Your task to perform on an android device: toggle translation in the chrome app Image 0: 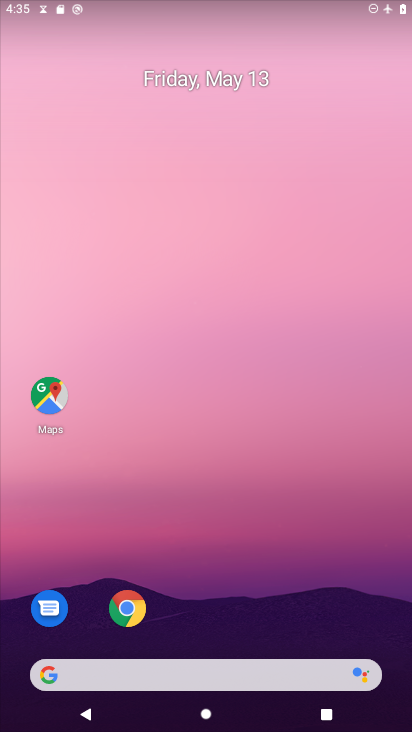
Step 0: drag from (288, 623) to (299, 124)
Your task to perform on an android device: toggle translation in the chrome app Image 1: 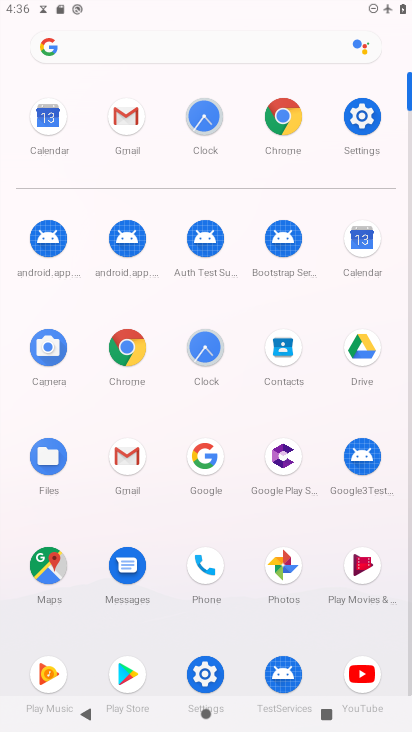
Step 1: click (129, 351)
Your task to perform on an android device: toggle translation in the chrome app Image 2: 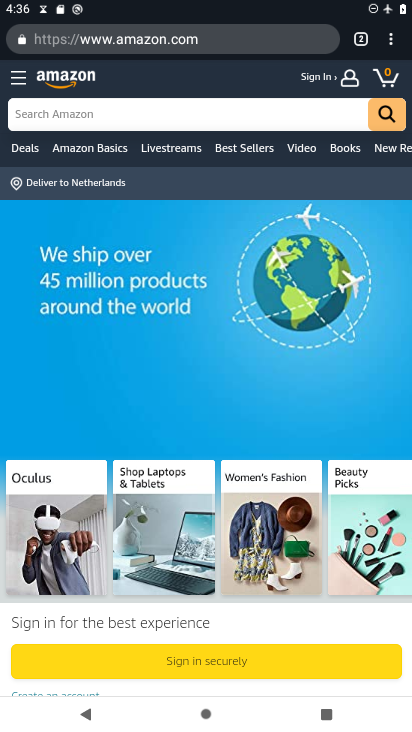
Step 2: click (394, 38)
Your task to perform on an android device: toggle translation in the chrome app Image 3: 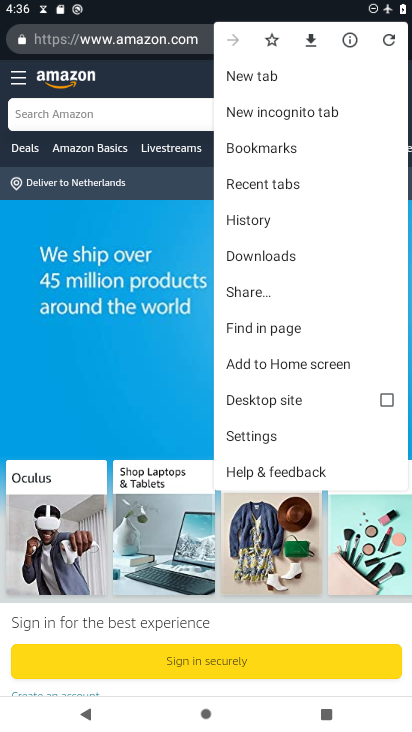
Step 3: click (261, 438)
Your task to perform on an android device: toggle translation in the chrome app Image 4: 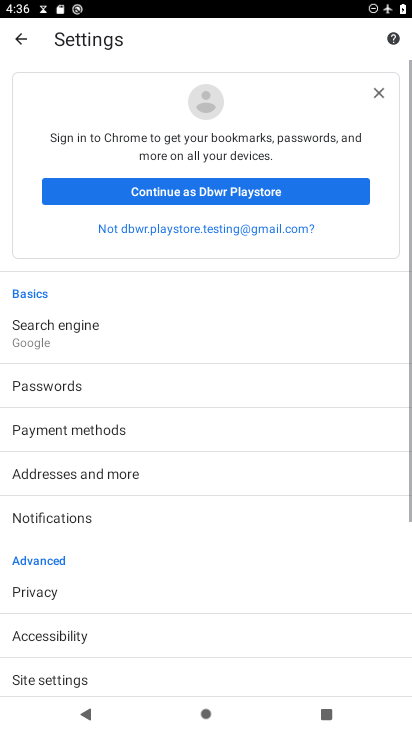
Step 4: drag from (127, 616) to (134, 203)
Your task to perform on an android device: toggle translation in the chrome app Image 5: 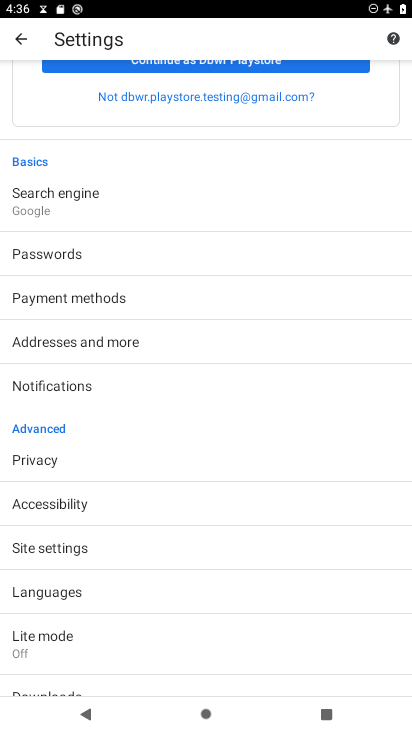
Step 5: drag from (205, 674) to (209, 389)
Your task to perform on an android device: toggle translation in the chrome app Image 6: 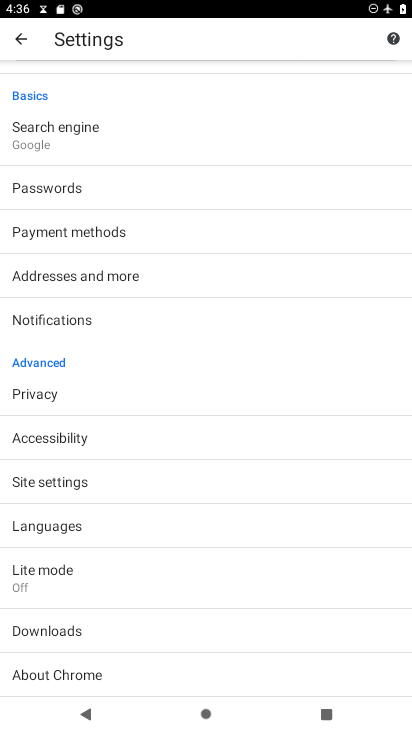
Step 6: click (101, 525)
Your task to perform on an android device: toggle translation in the chrome app Image 7: 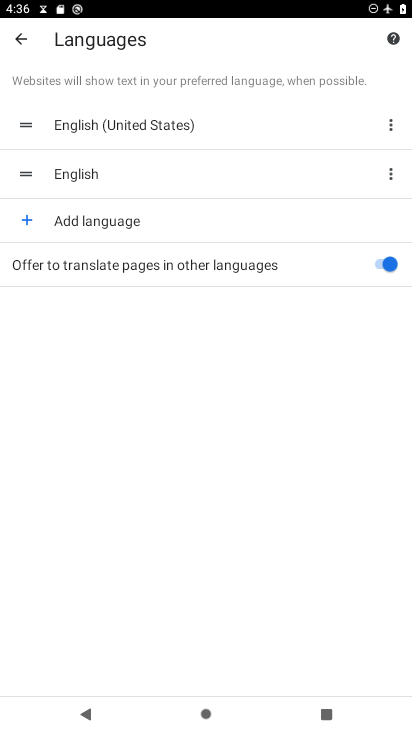
Step 7: click (380, 266)
Your task to perform on an android device: toggle translation in the chrome app Image 8: 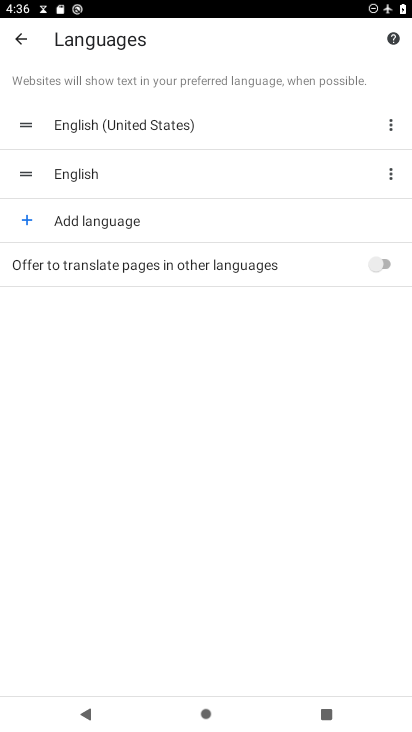
Step 8: task complete